Your task to perform on an android device: star an email in the gmail app Image 0: 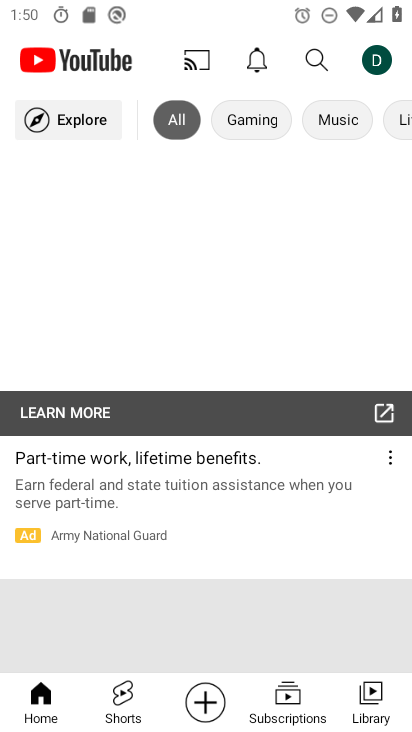
Step 0: click (320, 82)
Your task to perform on an android device: star an email in the gmail app Image 1: 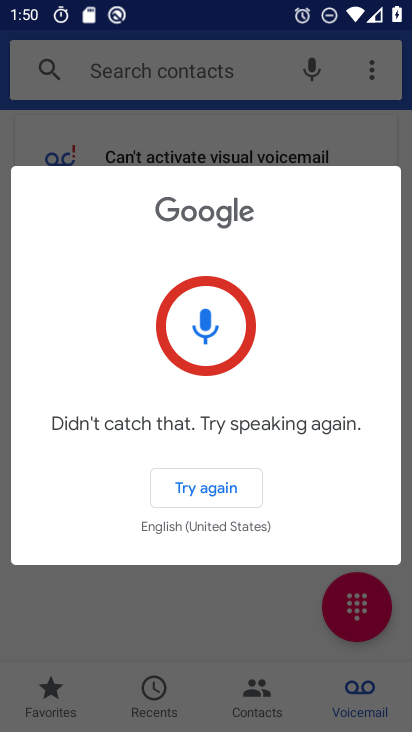
Step 1: press home button
Your task to perform on an android device: star an email in the gmail app Image 2: 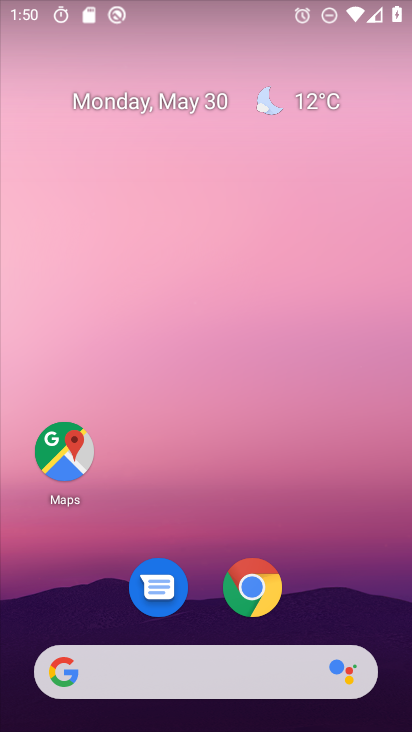
Step 2: drag from (335, 589) to (232, 74)
Your task to perform on an android device: star an email in the gmail app Image 3: 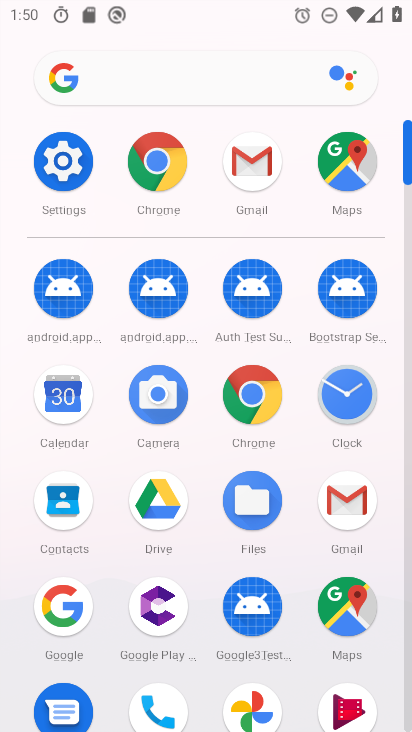
Step 3: click (246, 149)
Your task to perform on an android device: star an email in the gmail app Image 4: 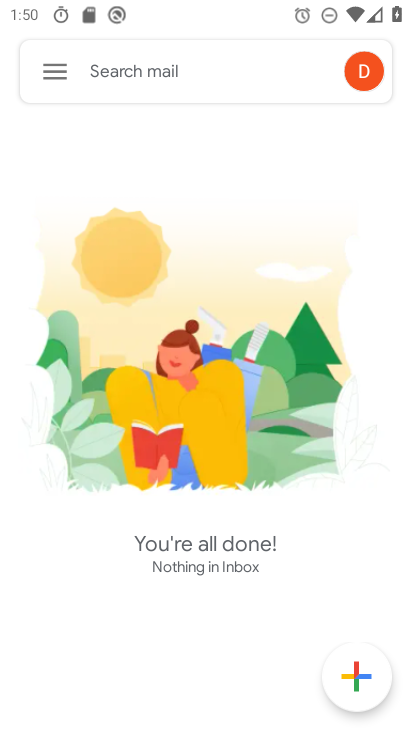
Step 4: click (58, 74)
Your task to perform on an android device: star an email in the gmail app Image 5: 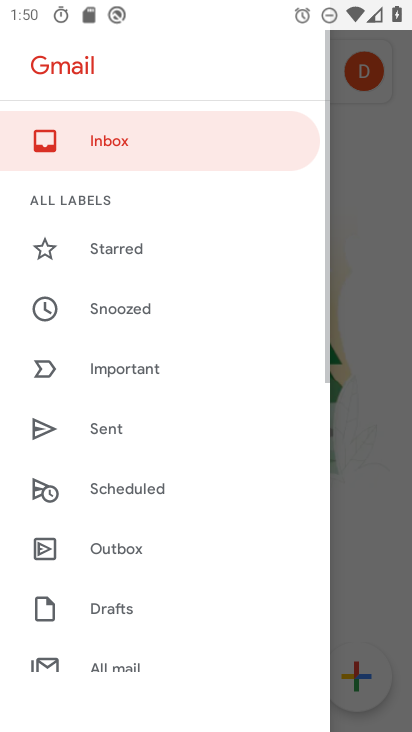
Step 5: drag from (159, 524) to (216, 155)
Your task to perform on an android device: star an email in the gmail app Image 6: 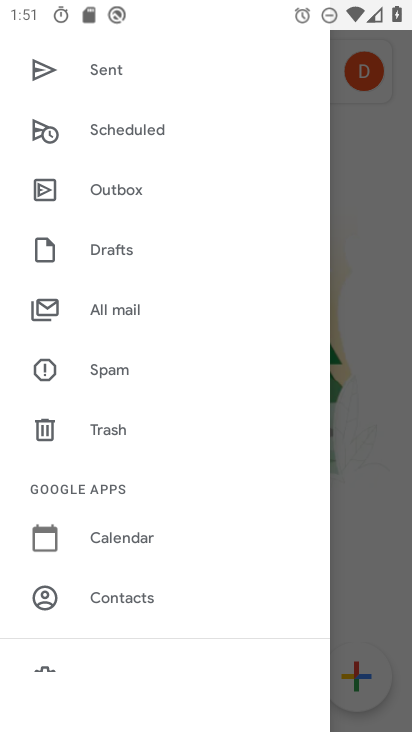
Step 6: click (114, 316)
Your task to perform on an android device: star an email in the gmail app Image 7: 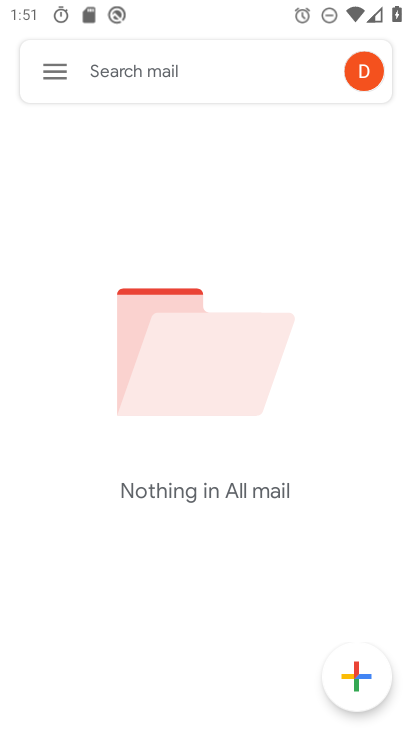
Step 7: task complete